Your task to perform on an android device: Open internet settings Image 0: 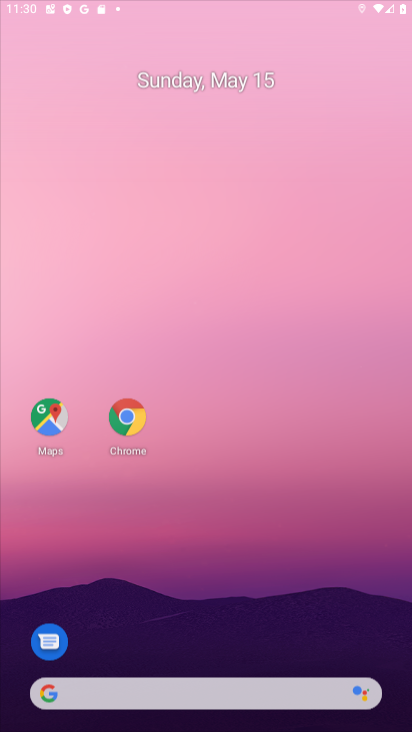
Step 0: click (288, 166)
Your task to perform on an android device: Open internet settings Image 1: 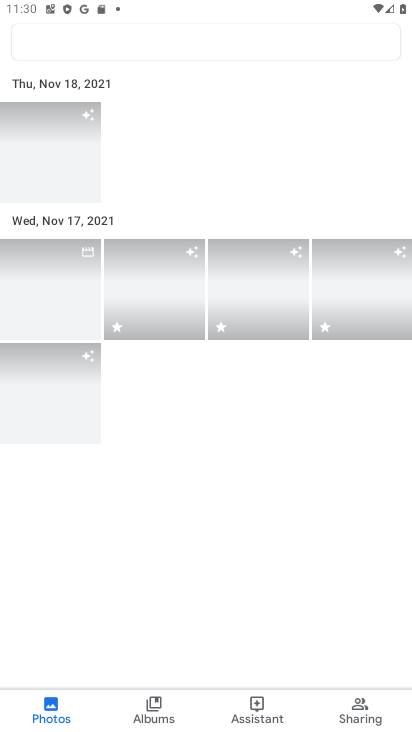
Step 1: drag from (191, 632) to (279, 180)
Your task to perform on an android device: Open internet settings Image 2: 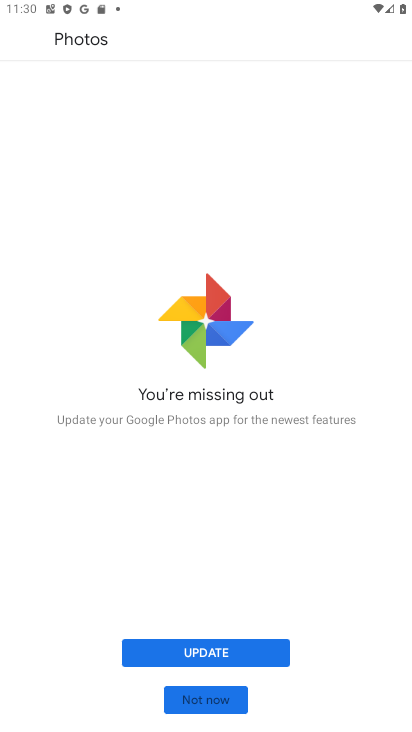
Step 2: press home button
Your task to perform on an android device: Open internet settings Image 3: 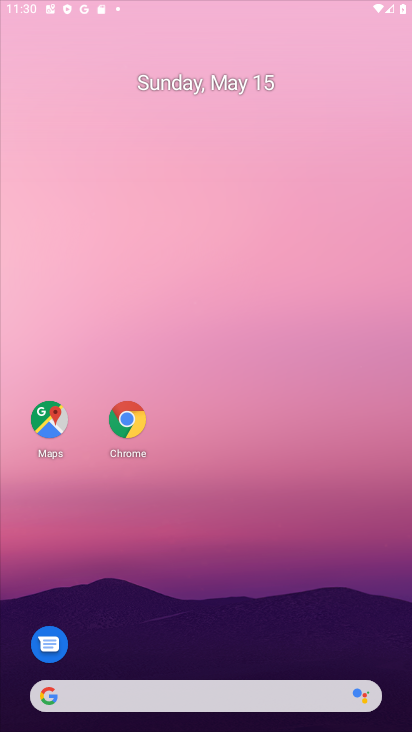
Step 3: drag from (211, 656) to (295, 187)
Your task to perform on an android device: Open internet settings Image 4: 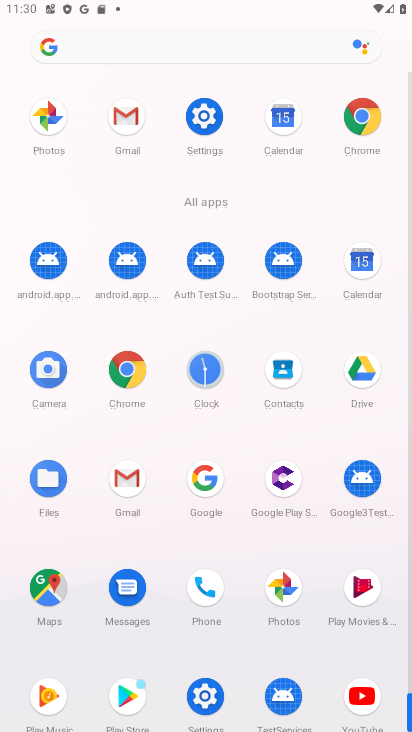
Step 4: click (190, 114)
Your task to perform on an android device: Open internet settings Image 5: 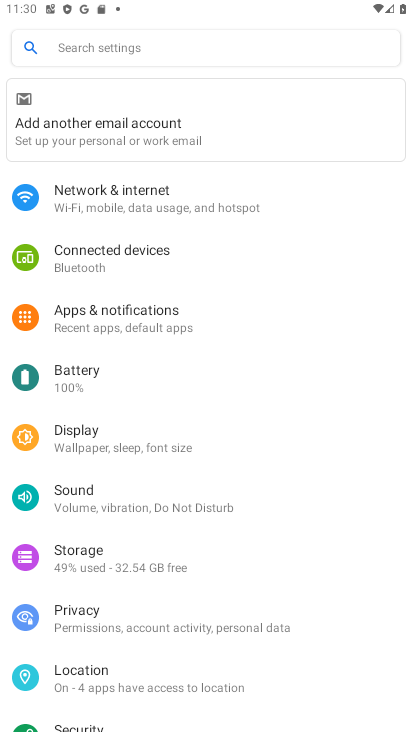
Step 5: drag from (220, 686) to (338, 181)
Your task to perform on an android device: Open internet settings Image 6: 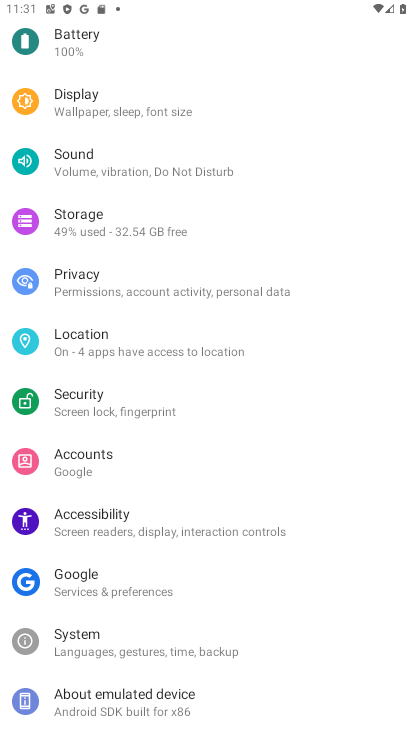
Step 6: drag from (198, 572) to (247, 257)
Your task to perform on an android device: Open internet settings Image 7: 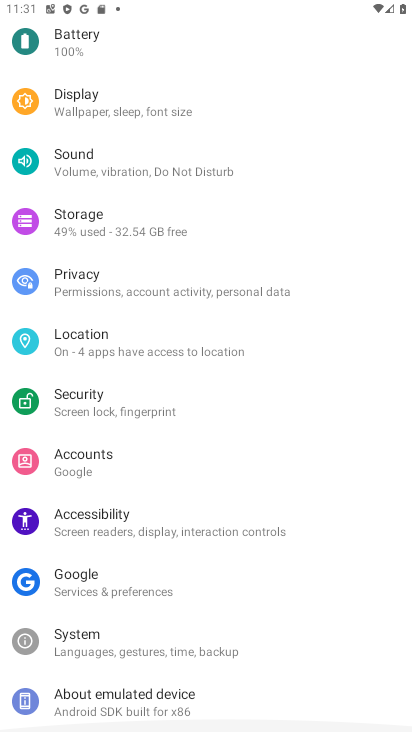
Step 7: drag from (251, 227) to (227, 637)
Your task to perform on an android device: Open internet settings Image 8: 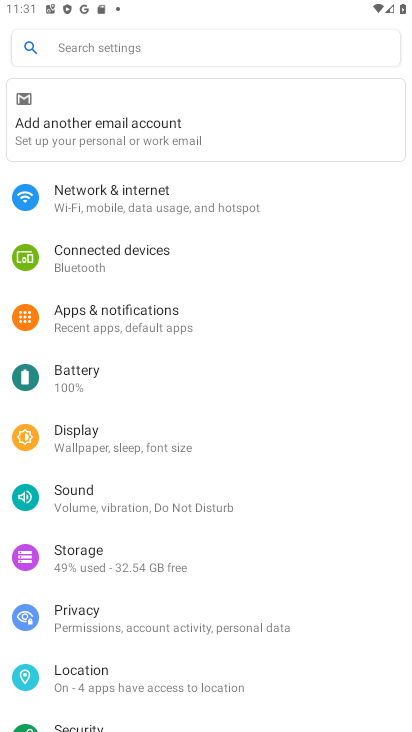
Step 8: drag from (216, 700) to (246, 346)
Your task to perform on an android device: Open internet settings Image 9: 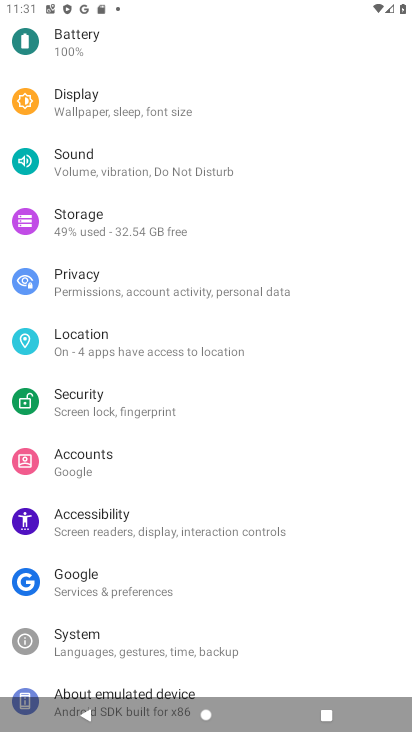
Step 9: drag from (229, 182) to (193, 729)
Your task to perform on an android device: Open internet settings Image 10: 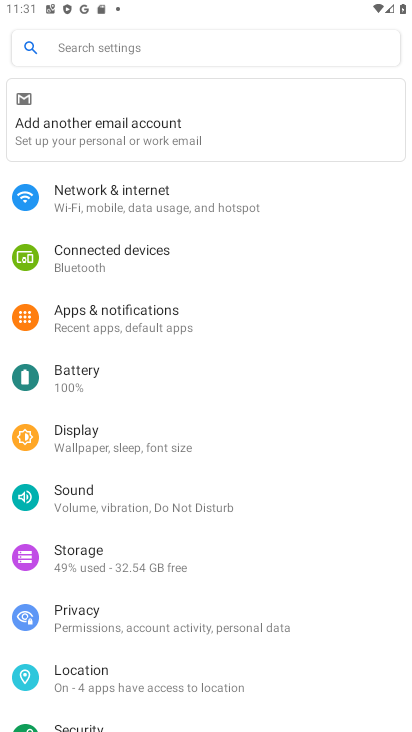
Step 10: click (144, 192)
Your task to perform on an android device: Open internet settings Image 11: 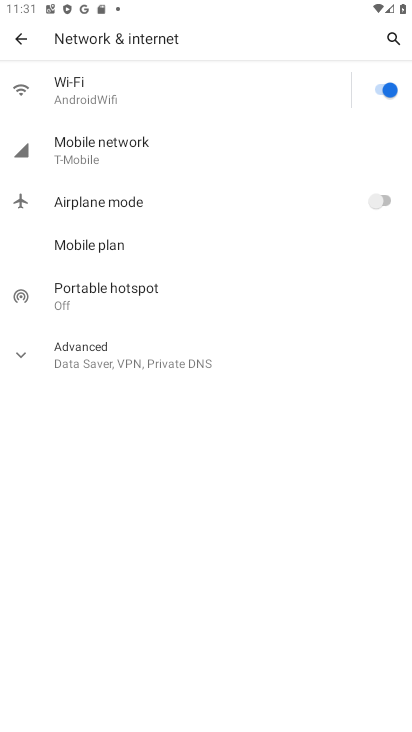
Step 11: task complete